Your task to perform on an android device: Open Google Chrome Image 0: 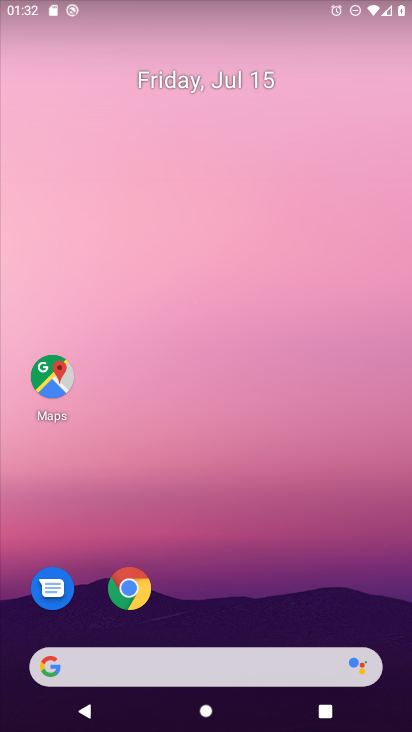
Step 0: click (122, 588)
Your task to perform on an android device: Open Google Chrome Image 1: 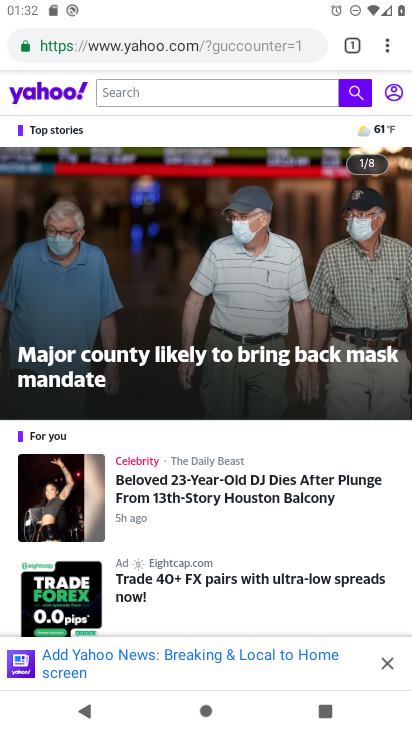
Step 1: task complete